Your task to perform on an android device: open app "Spotify" (install if not already installed) and go to login screen Image 0: 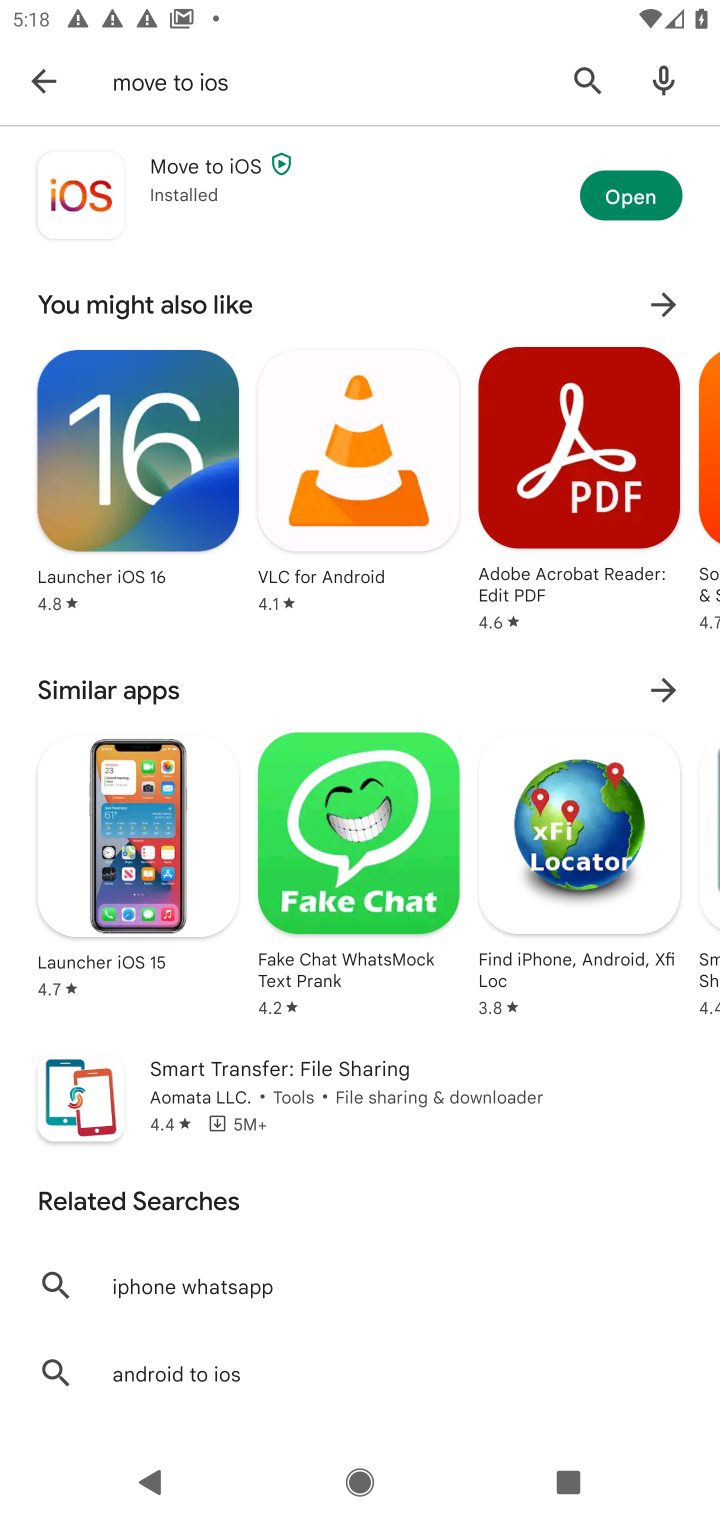
Step 0: click (581, 84)
Your task to perform on an android device: open app "Spotify" (install if not already installed) and go to login screen Image 1: 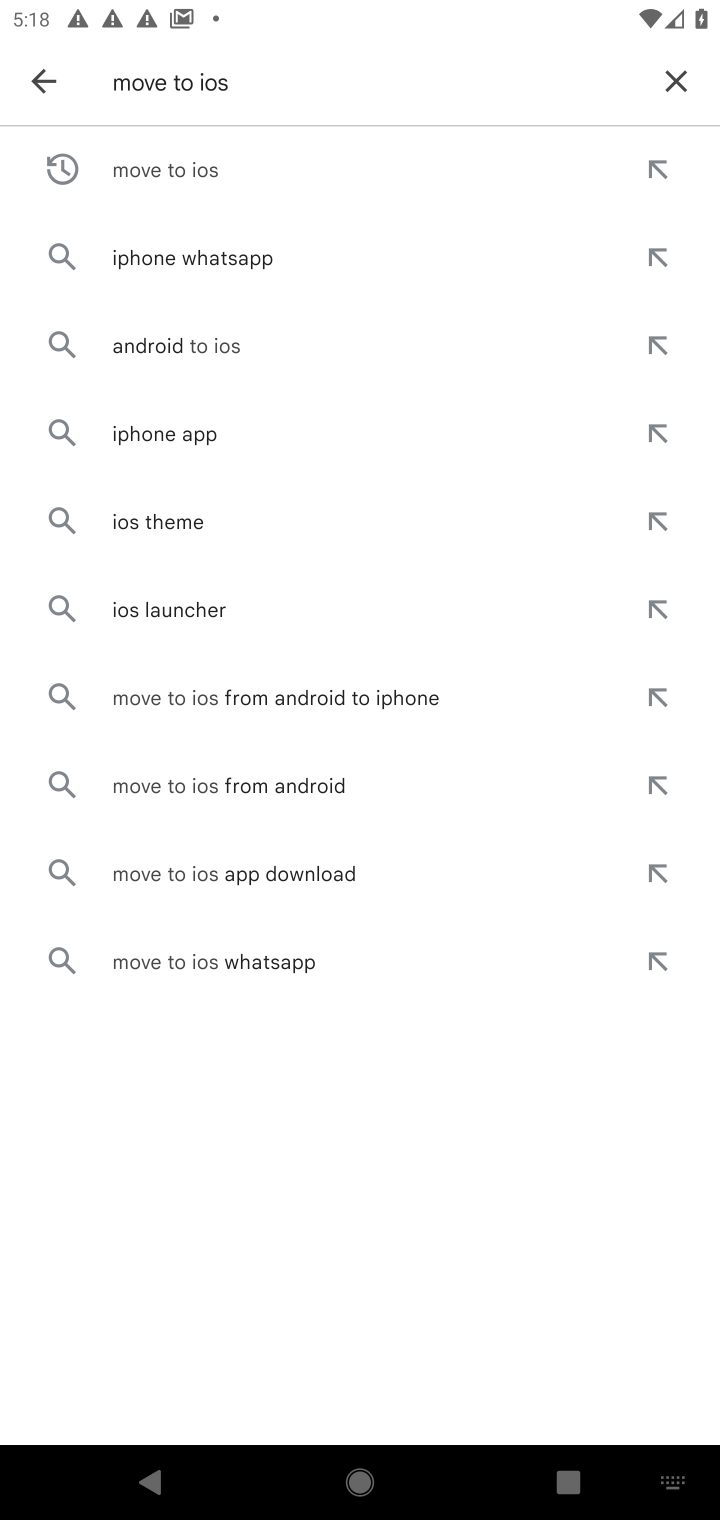
Step 1: click (674, 82)
Your task to perform on an android device: open app "Spotify" (install if not already installed) and go to login screen Image 2: 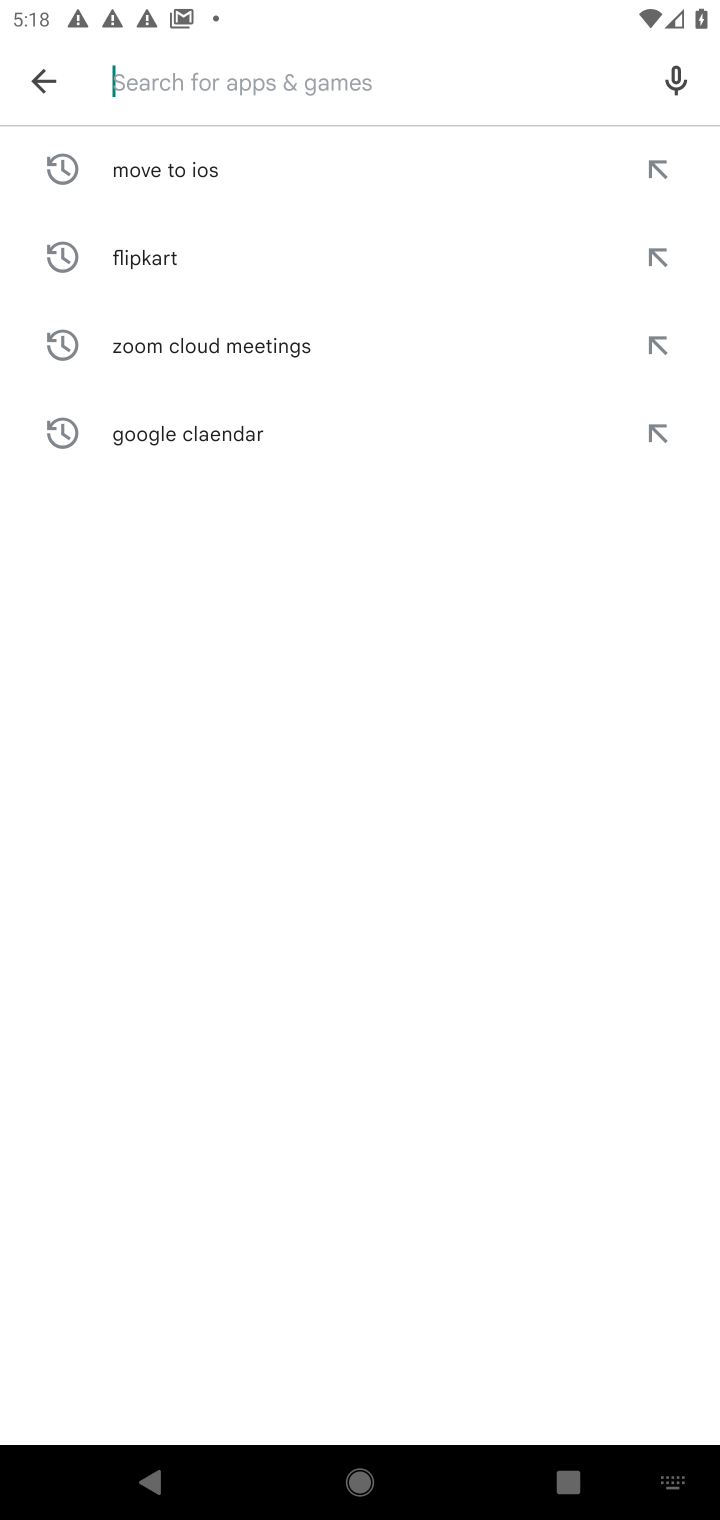
Step 2: type "spotify"
Your task to perform on an android device: open app "Spotify" (install if not already installed) and go to login screen Image 3: 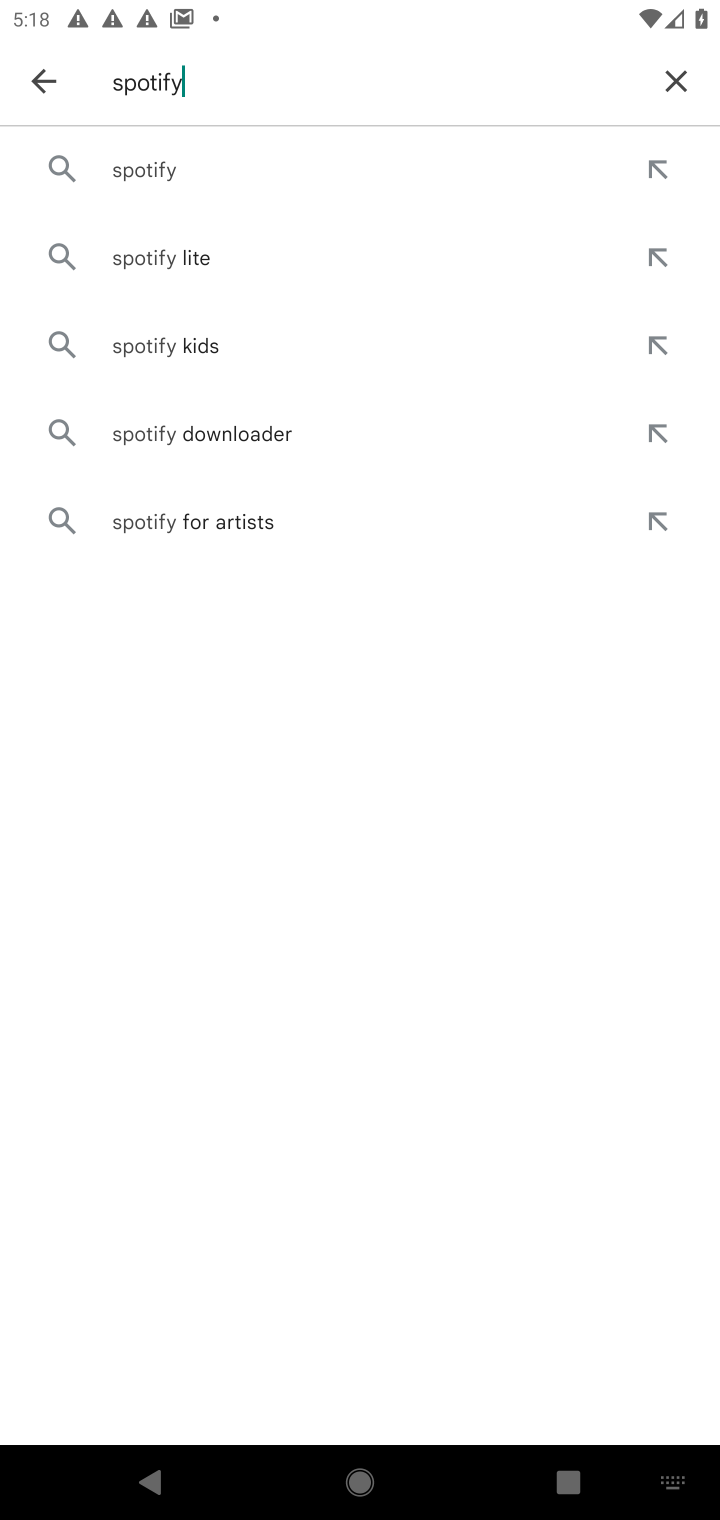
Step 3: click (168, 135)
Your task to perform on an android device: open app "Spotify" (install if not already installed) and go to login screen Image 4: 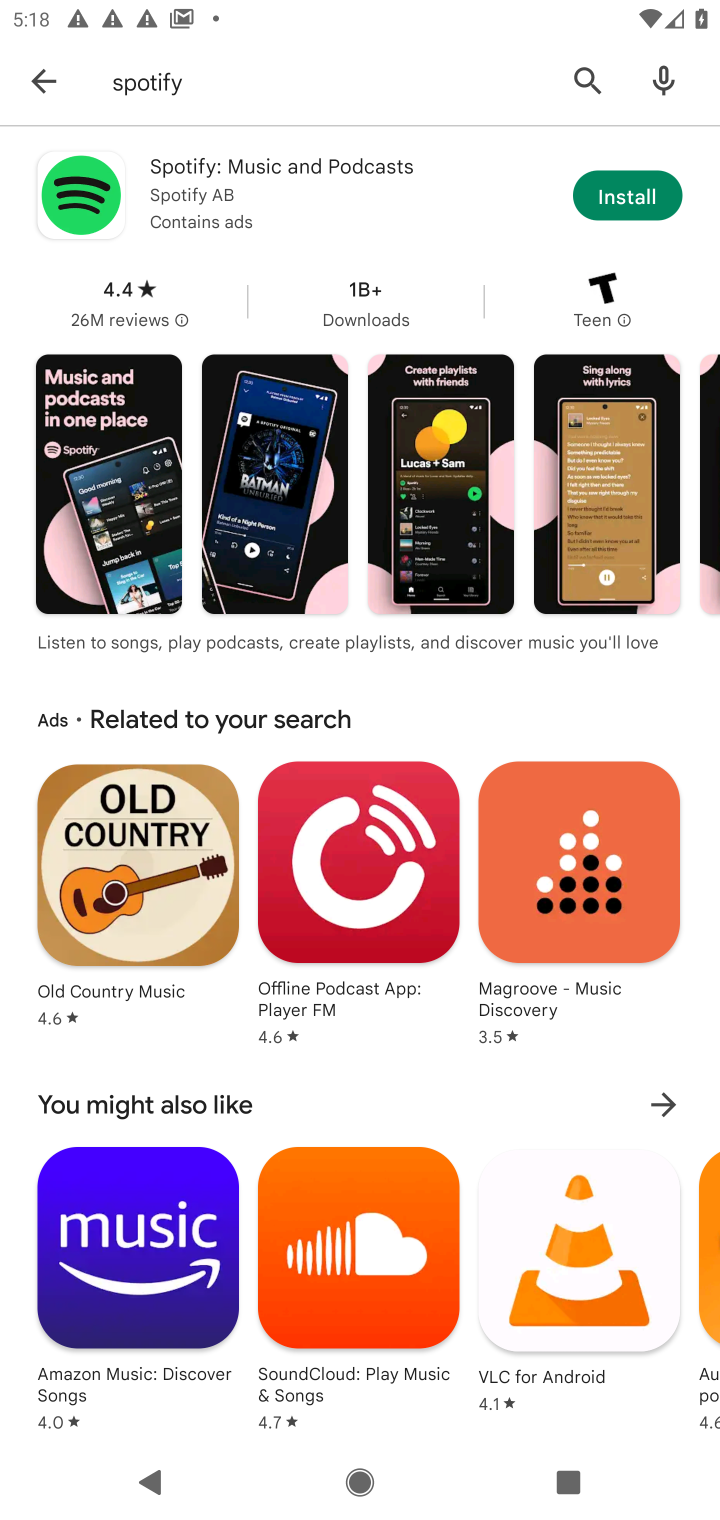
Step 4: click (592, 188)
Your task to perform on an android device: open app "Spotify" (install if not already installed) and go to login screen Image 5: 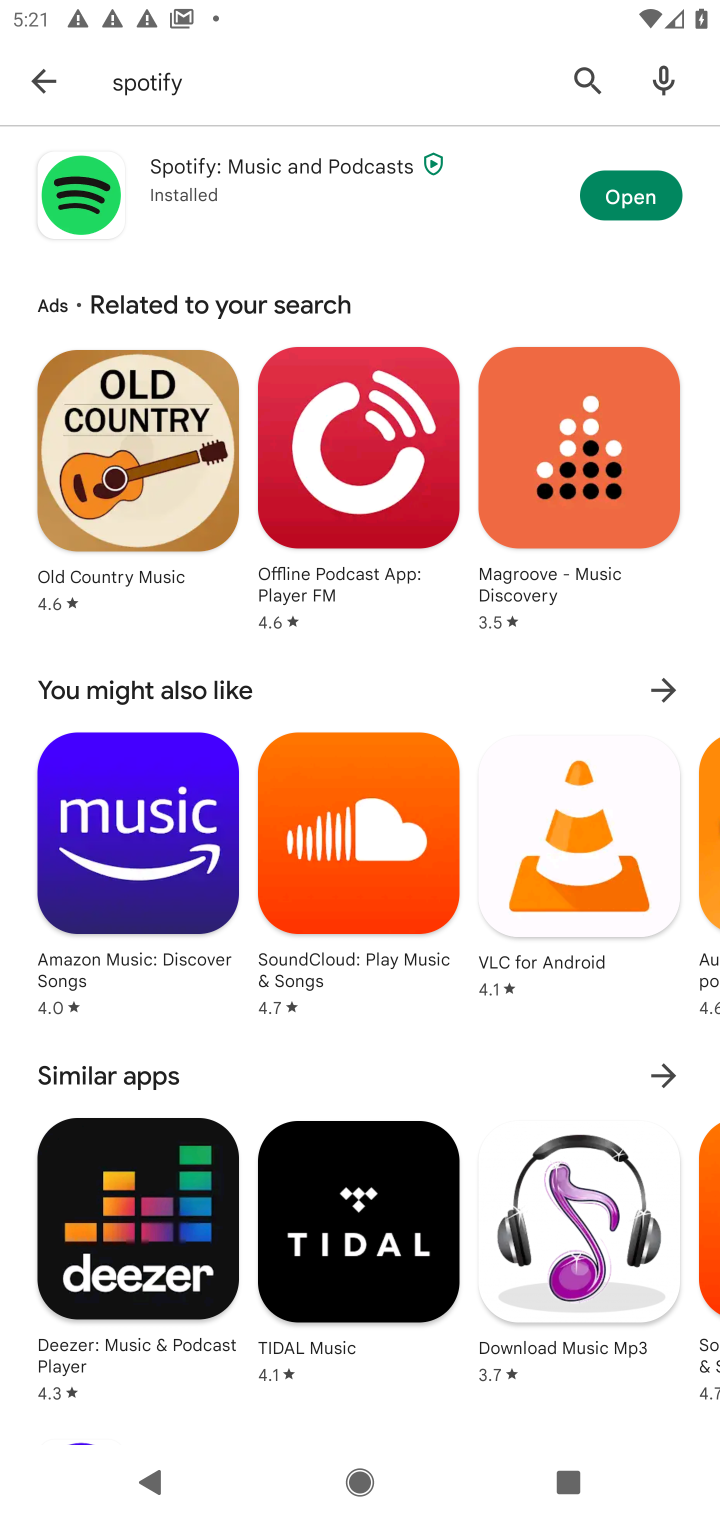
Step 5: click (610, 204)
Your task to perform on an android device: open app "Spotify" (install if not already installed) and go to login screen Image 6: 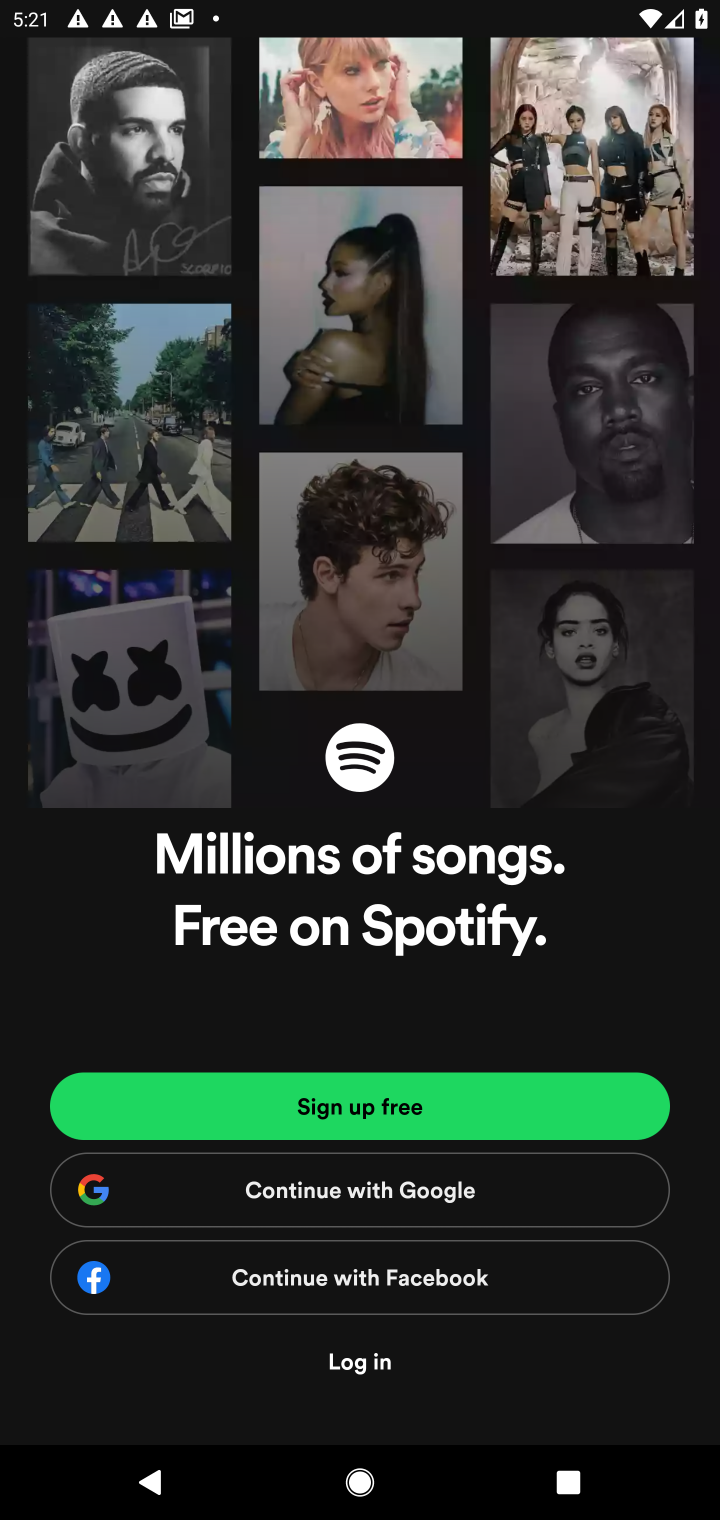
Step 6: click (367, 1380)
Your task to perform on an android device: open app "Spotify" (install if not already installed) and go to login screen Image 7: 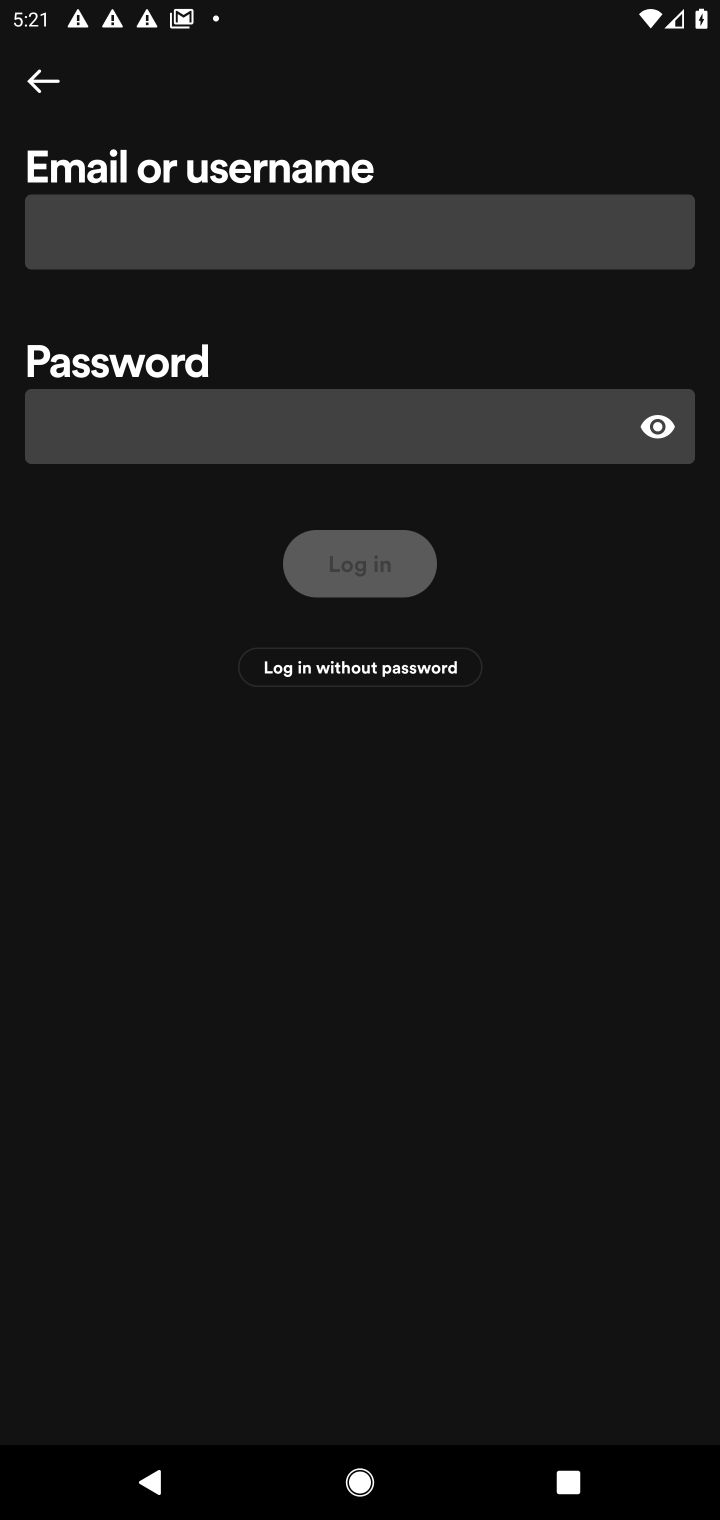
Step 7: task complete